Your task to perform on an android device: clear history in the chrome app Image 0: 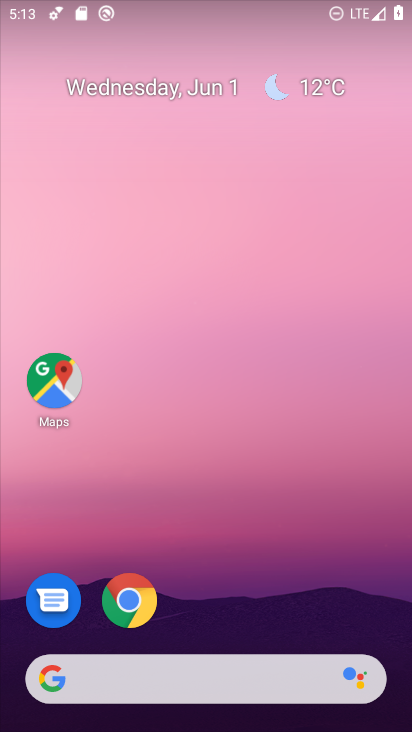
Step 0: click (132, 597)
Your task to perform on an android device: clear history in the chrome app Image 1: 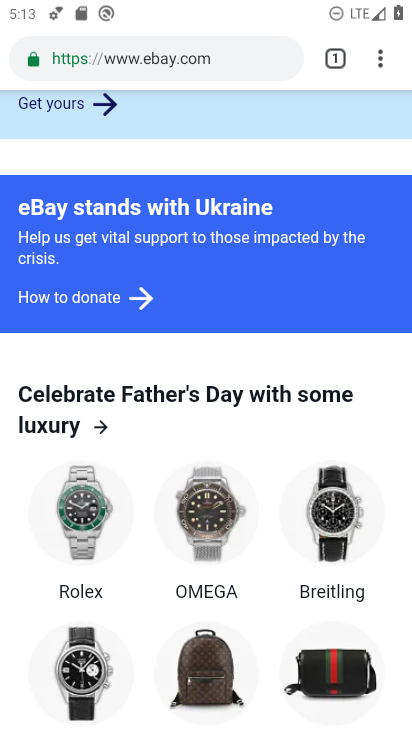
Step 1: click (378, 62)
Your task to perform on an android device: clear history in the chrome app Image 2: 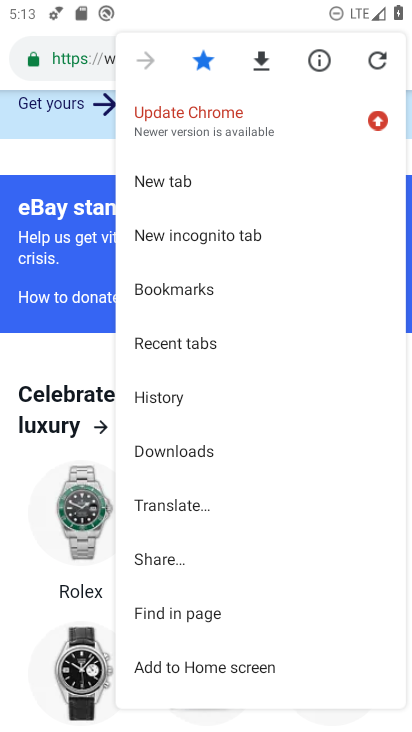
Step 2: click (175, 396)
Your task to perform on an android device: clear history in the chrome app Image 3: 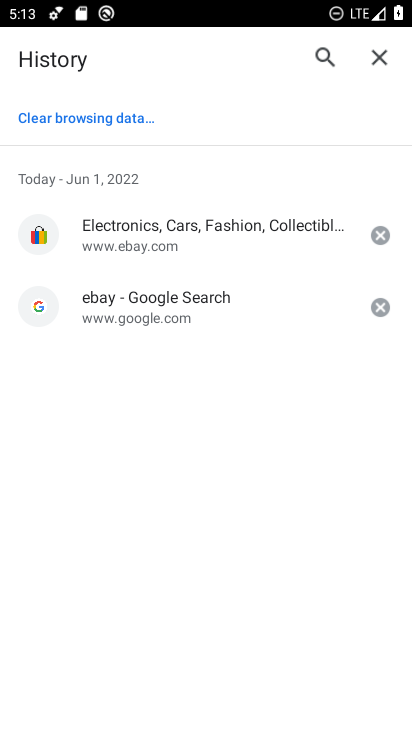
Step 3: click (89, 119)
Your task to perform on an android device: clear history in the chrome app Image 4: 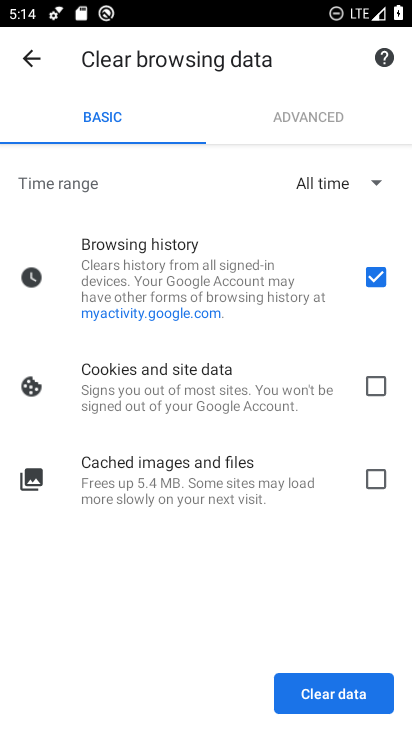
Step 4: click (328, 696)
Your task to perform on an android device: clear history in the chrome app Image 5: 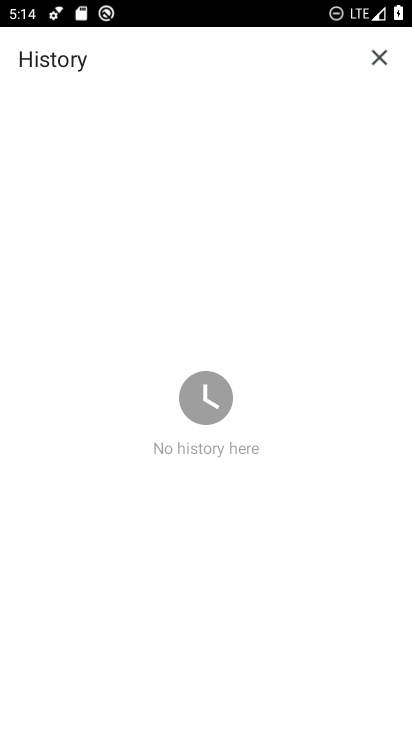
Step 5: task complete